Your task to perform on an android device: turn off airplane mode Image 0: 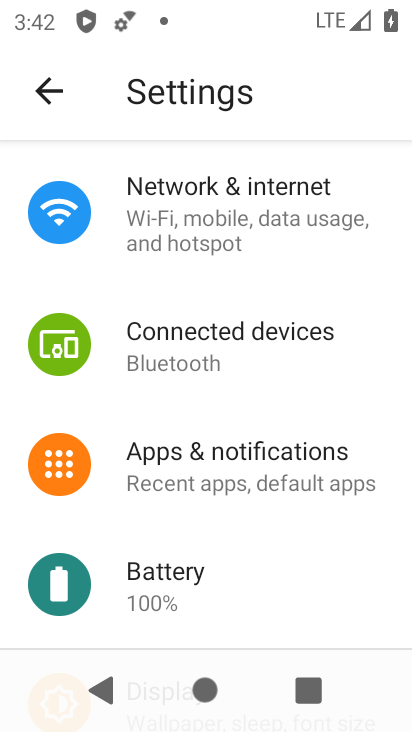
Step 0: drag from (283, 293) to (272, 615)
Your task to perform on an android device: turn off airplane mode Image 1: 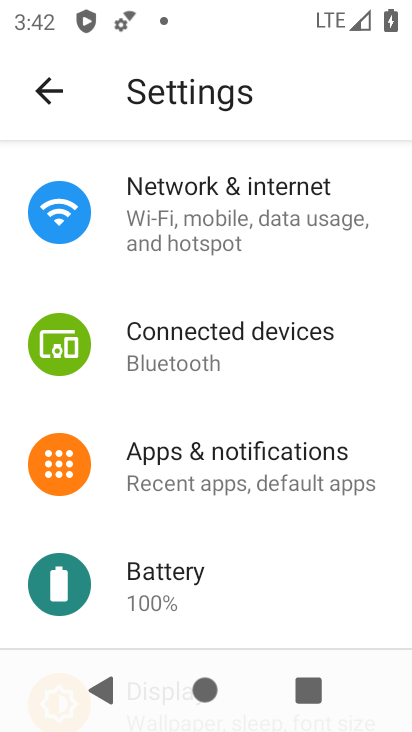
Step 1: click (245, 233)
Your task to perform on an android device: turn off airplane mode Image 2: 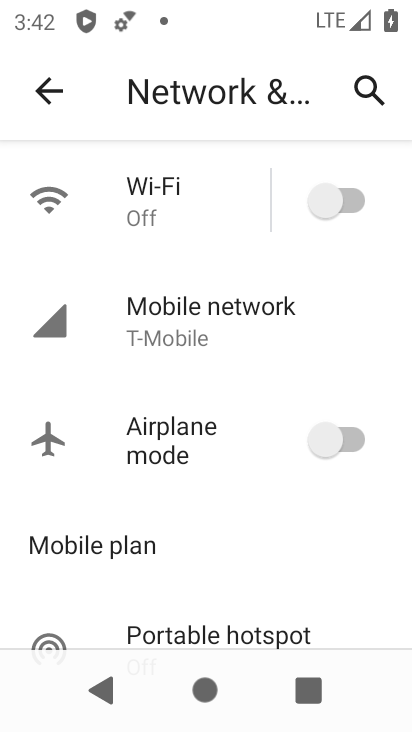
Step 2: task complete